Your task to perform on an android device: Add razer blade to the cart on bestbuy.com Image 0: 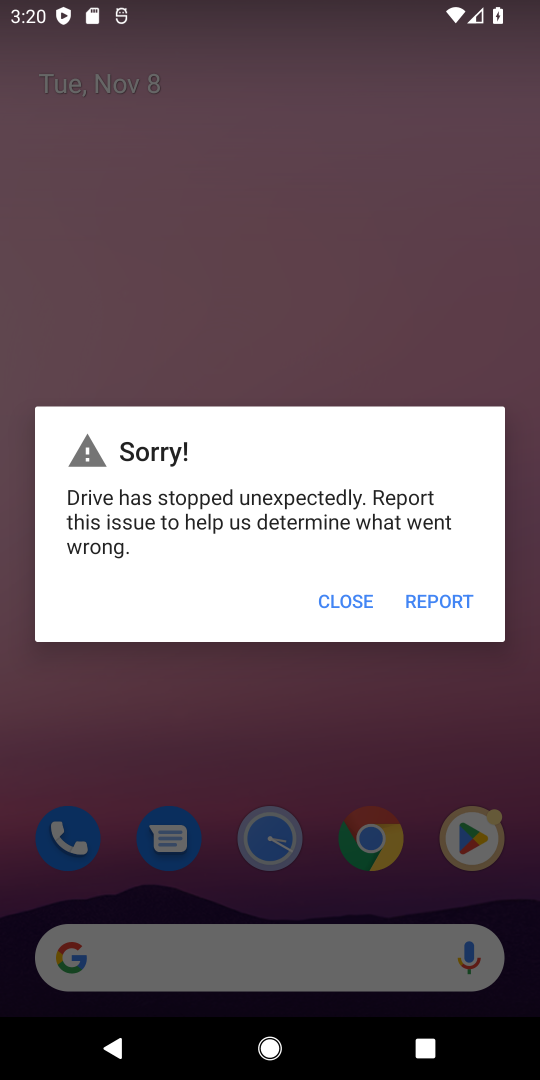
Step 0: press home button
Your task to perform on an android device: Add razer blade to the cart on bestbuy.com Image 1: 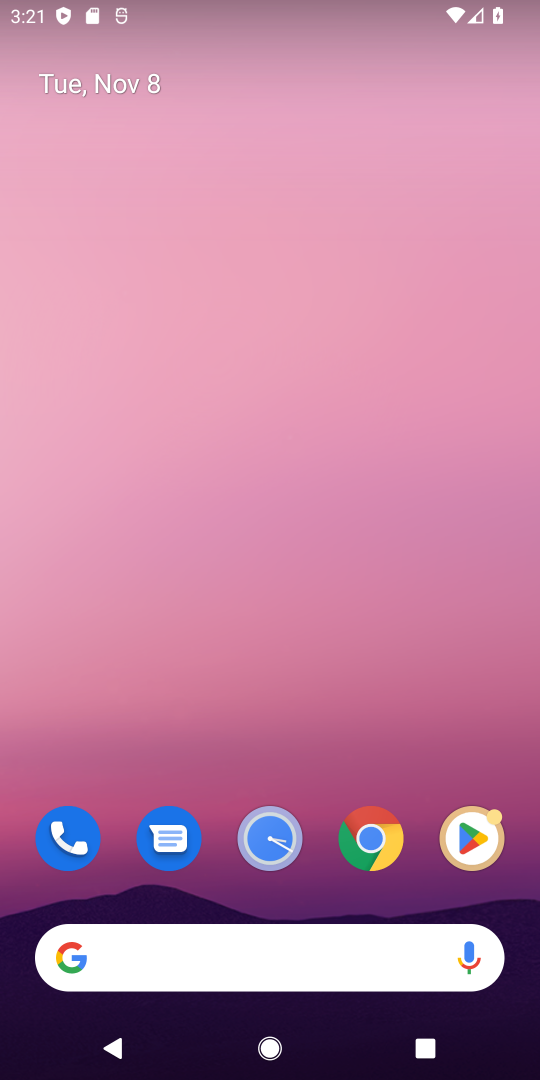
Step 1: drag from (358, 1021) to (406, 190)
Your task to perform on an android device: Add razer blade to the cart on bestbuy.com Image 2: 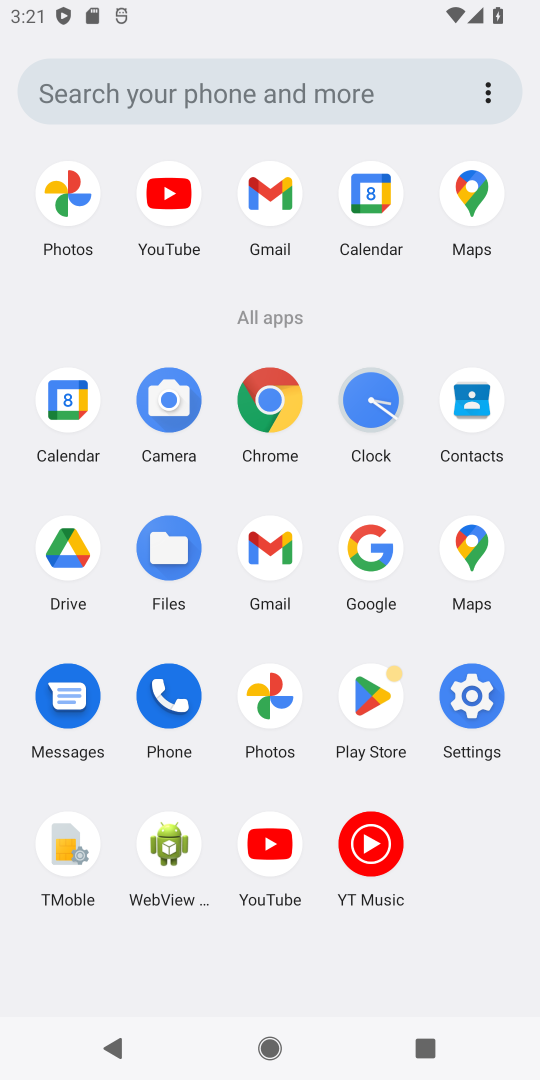
Step 2: click (273, 394)
Your task to perform on an android device: Add razer blade to the cart on bestbuy.com Image 3: 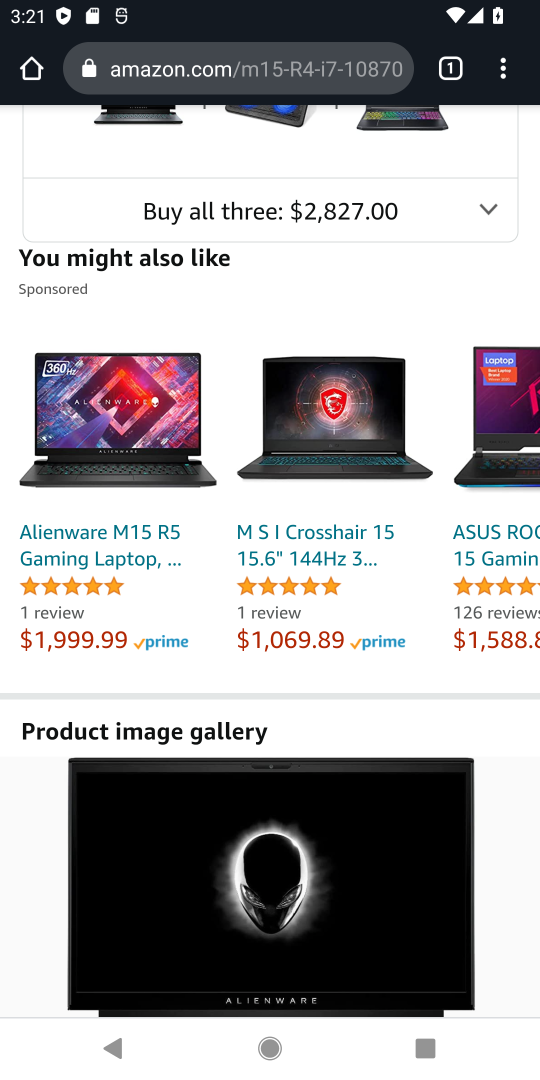
Step 3: click (284, 74)
Your task to perform on an android device: Add razer blade to the cart on bestbuy.com Image 4: 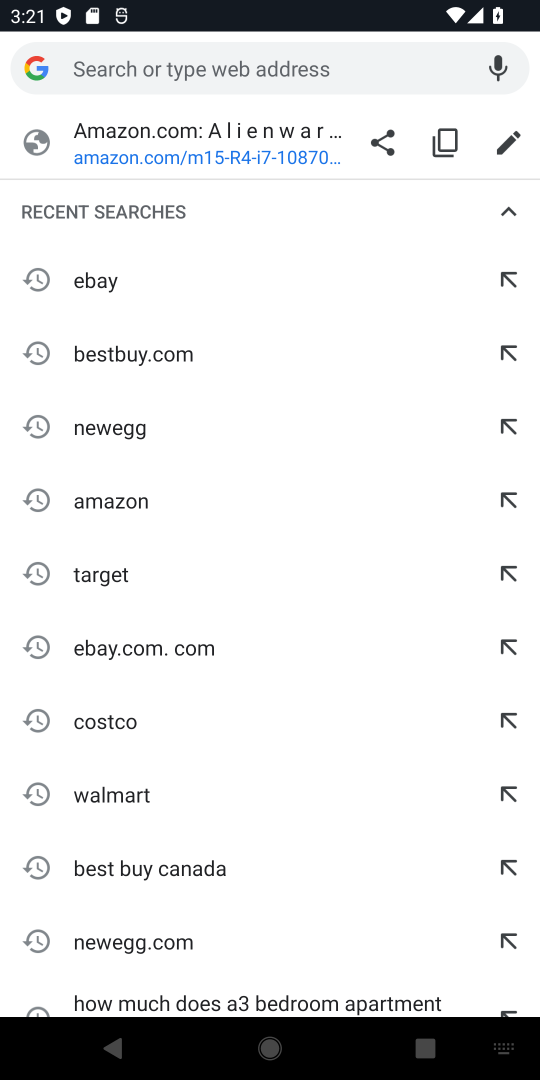
Step 4: type "bestbuy.com"
Your task to perform on an android device: Add razer blade to the cart on bestbuy.com Image 5: 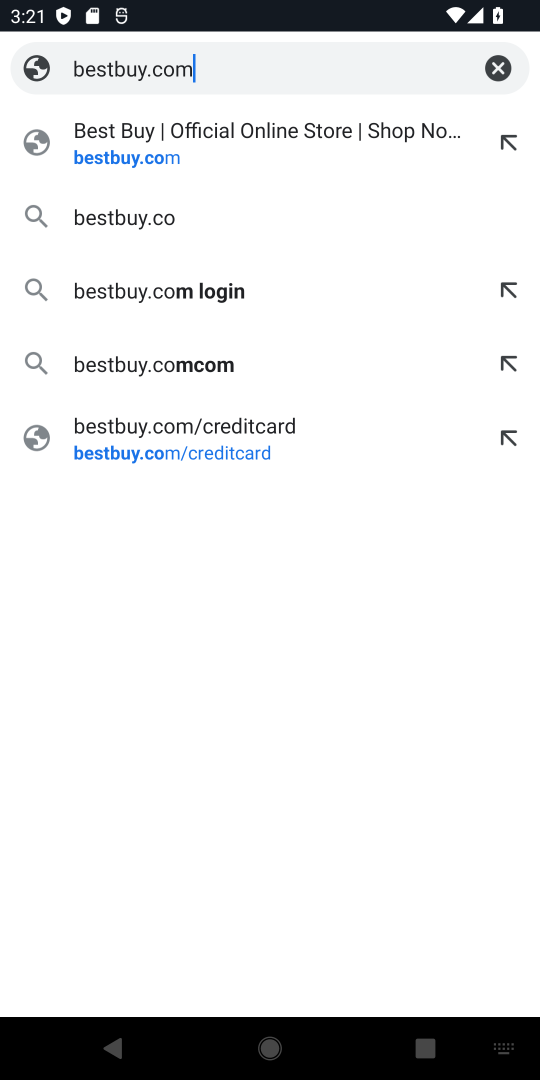
Step 5: type ""
Your task to perform on an android device: Add razer blade to the cart on bestbuy.com Image 6: 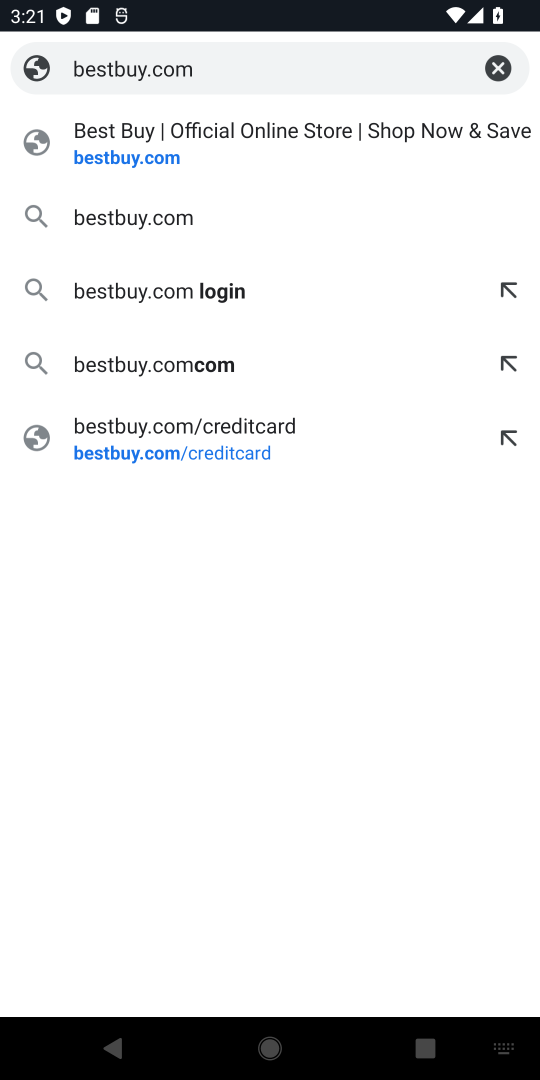
Step 6: click (154, 159)
Your task to perform on an android device: Add razer blade to the cart on bestbuy.com Image 7: 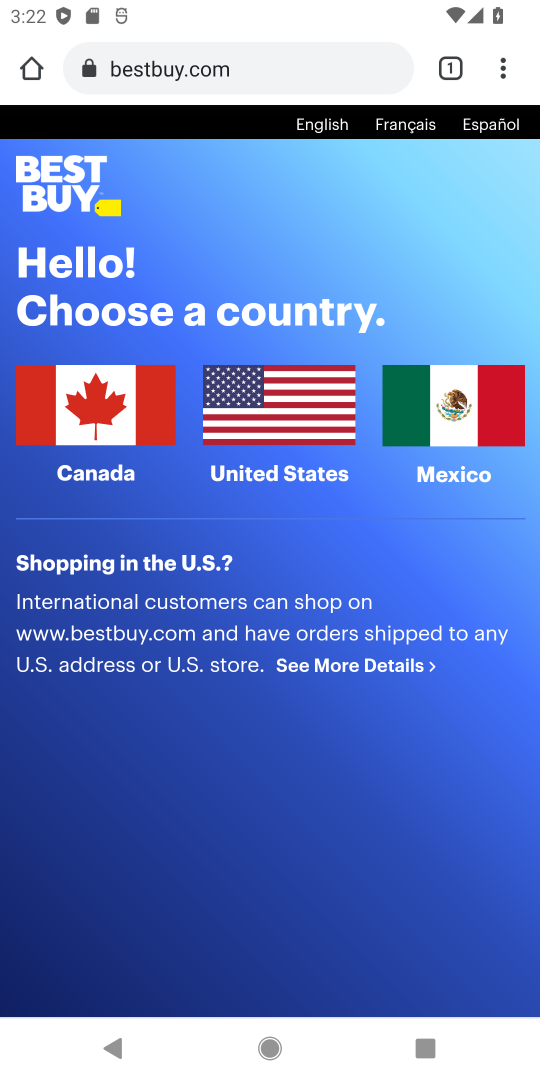
Step 7: click (104, 423)
Your task to perform on an android device: Add razer blade to the cart on bestbuy.com Image 8: 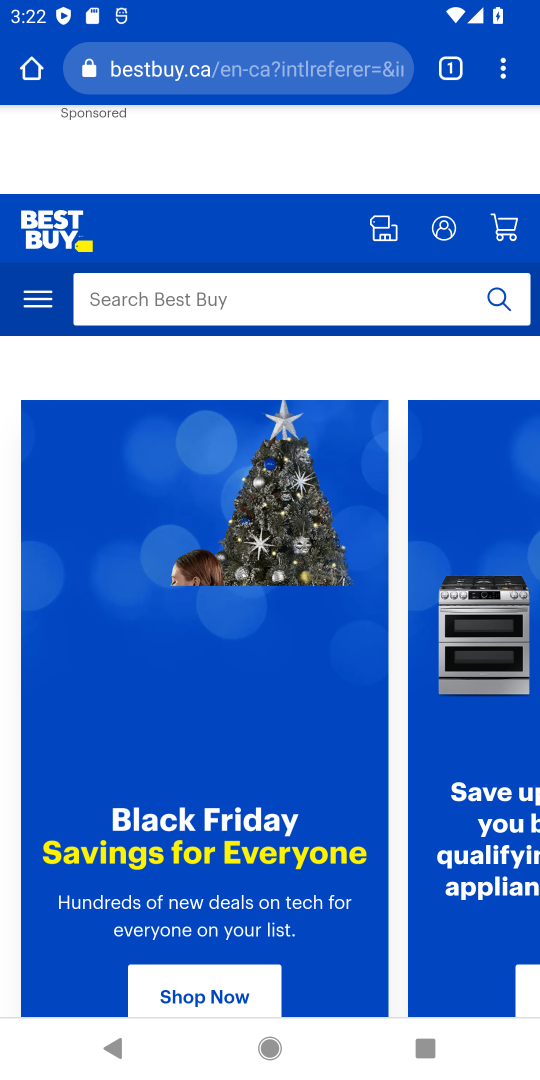
Step 8: click (352, 795)
Your task to perform on an android device: Add razer blade to the cart on bestbuy.com Image 9: 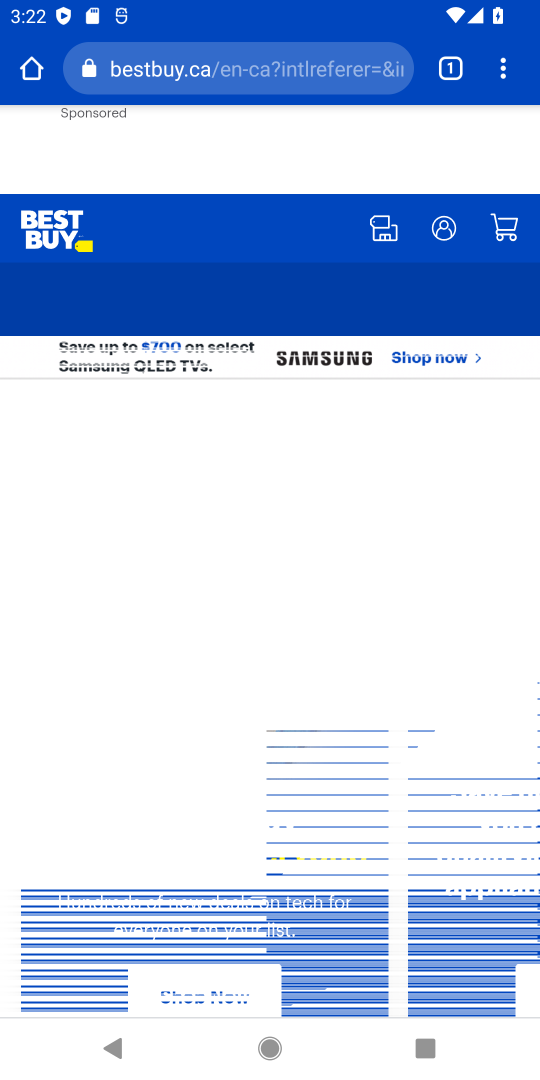
Step 9: click (349, 592)
Your task to perform on an android device: Add razer blade to the cart on bestbuy.com Image 10: 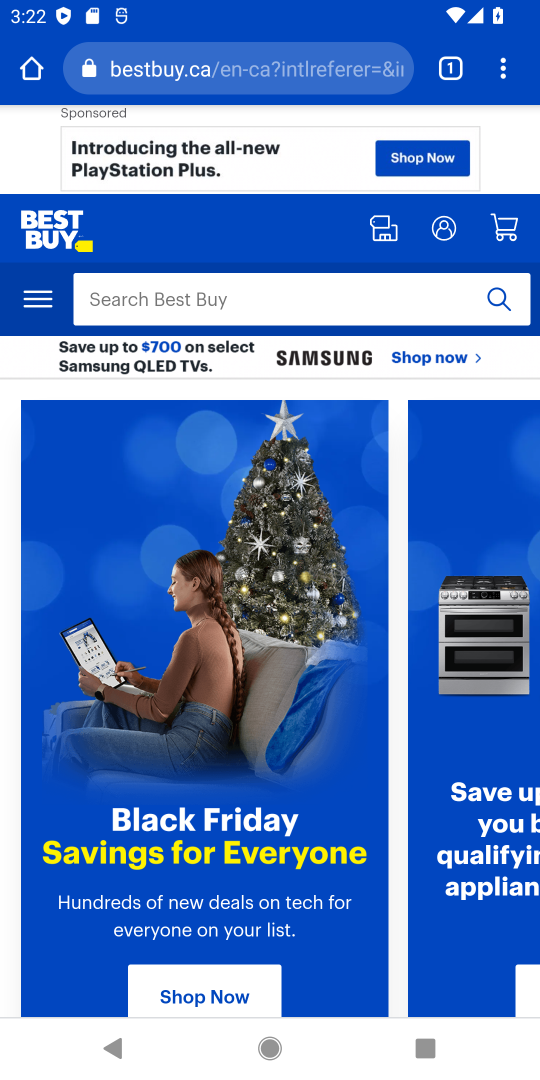
Step 10: click (283, 293)
Your task to perform on an android device: Add razer blade to the cart on bestbuy.com Image 11: 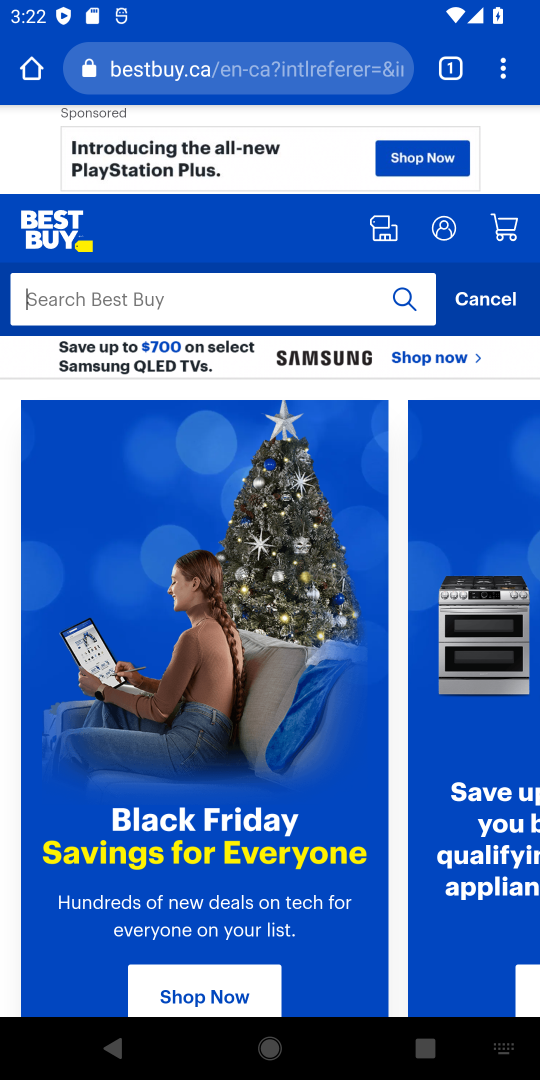
Step 11: type " razer blade"
Your task to perform on an android device: Add razer blade to the cart on bestbuy.com Image 12: 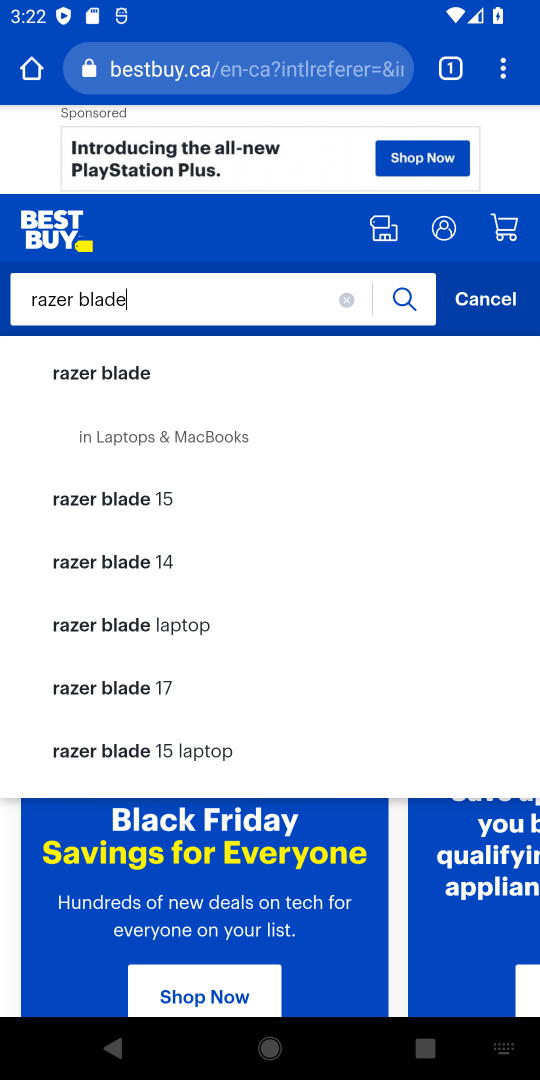
Step 12: click (122, 375)
Your task to perform on an android device: Add razer blade to the cart on bestbuy.com Image 13: 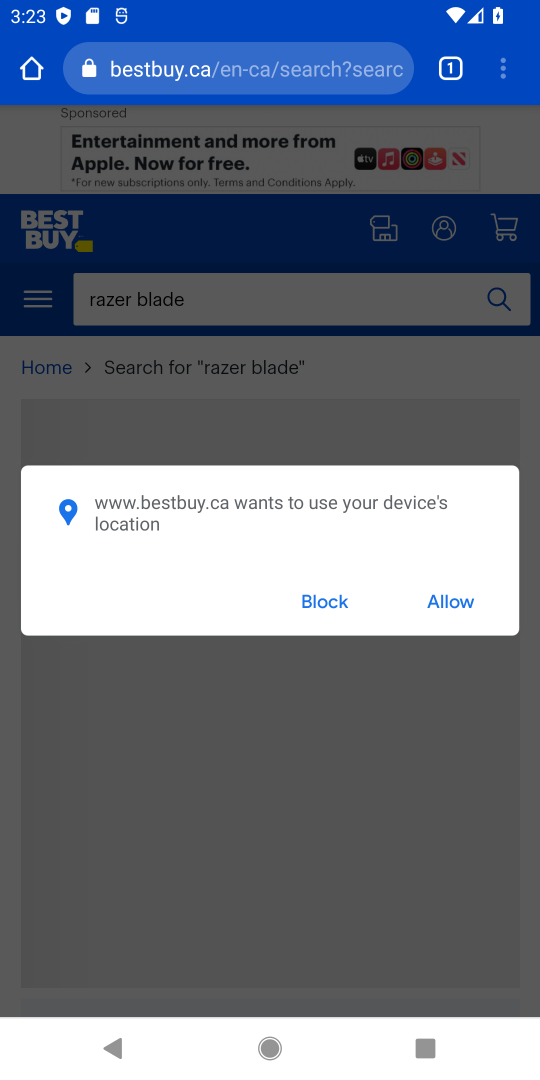
Step 13: click (454, 593)
Your task to perform on an android device: Add razer blade to the cart on bestbuy.com Image 14: 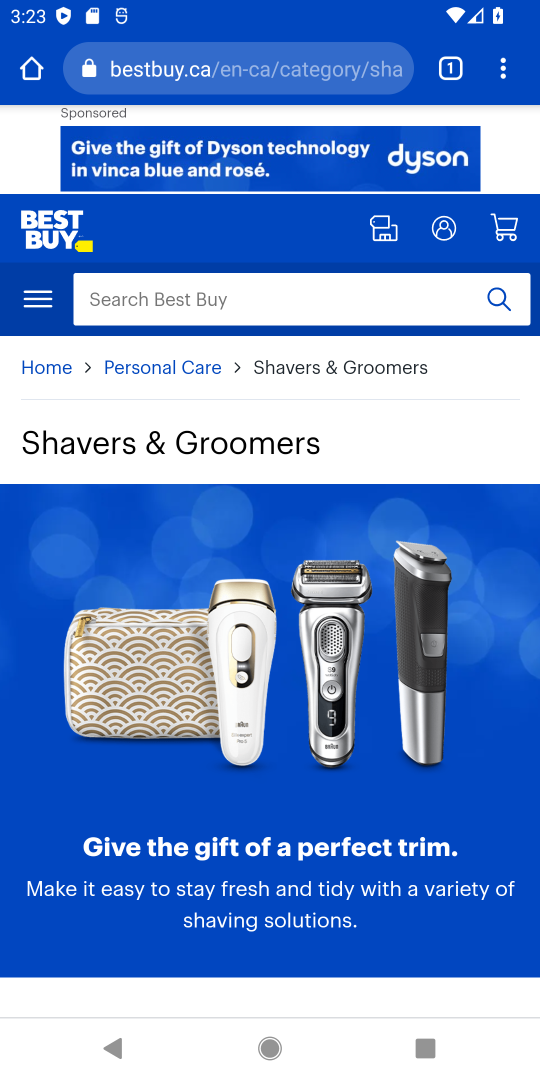
Step 14: drag from (375, 670) to (397, 232)
Your task to perform on an android device: Add razer blade to the cart on bestbuy.com Image 15: 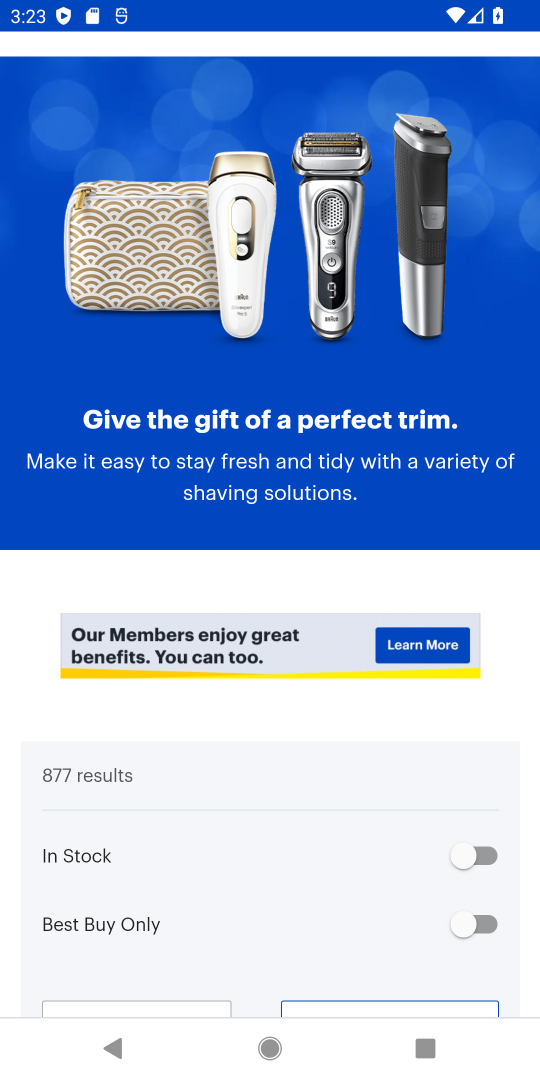
Step 15: drag from (392, 773) to (447, 240)
Your task to perform on an android device: Add razer blade to the cart on bestbuy.com Image 16: 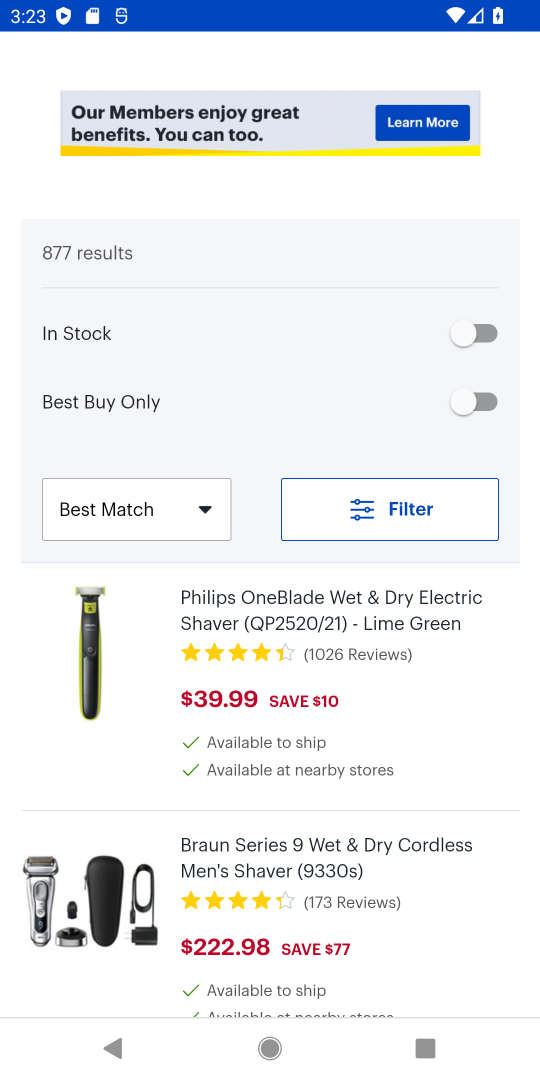
Step 16: click (303, 670)
Your task to perform on an android device: Add razer blade to the cart on bestbuy.com Image 17: 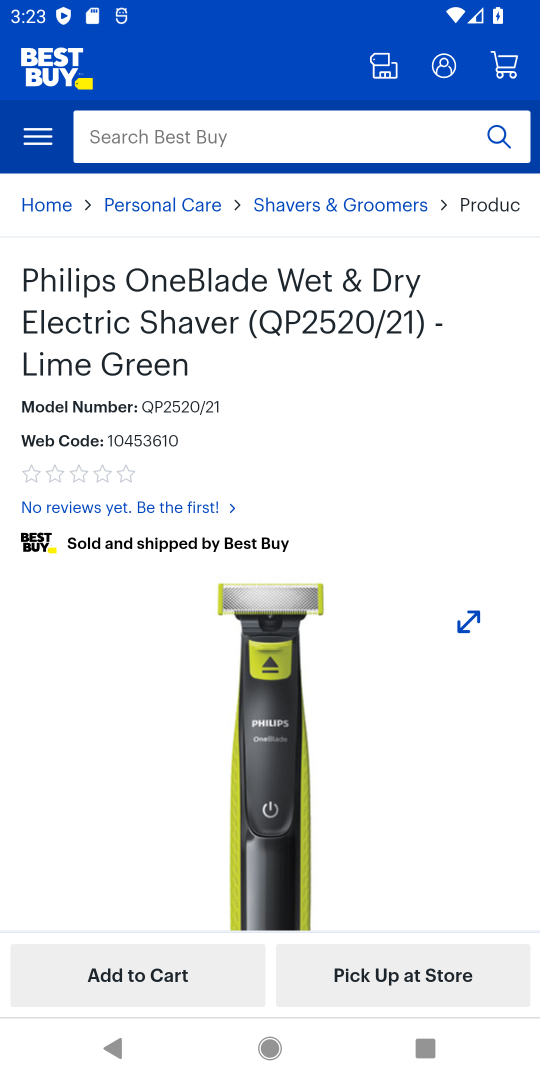
Step 17: click (205, 967)
Your task to perform on an android device: Add razer blade to the cart on bestbuy.com Image 18: 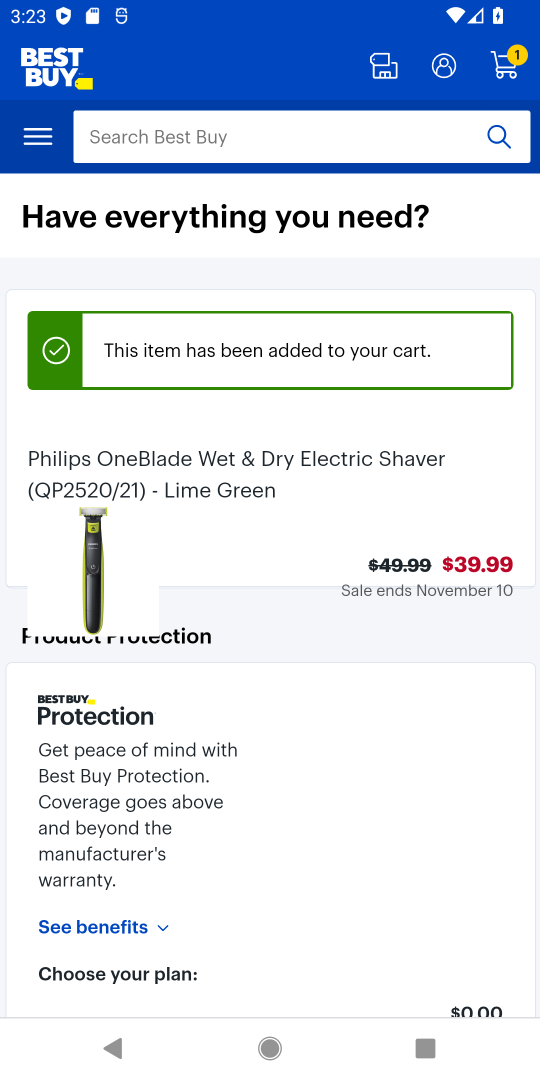
Step 18: task complete